Your task to perform on an android device: uninstall "Google Photos" Image 0: 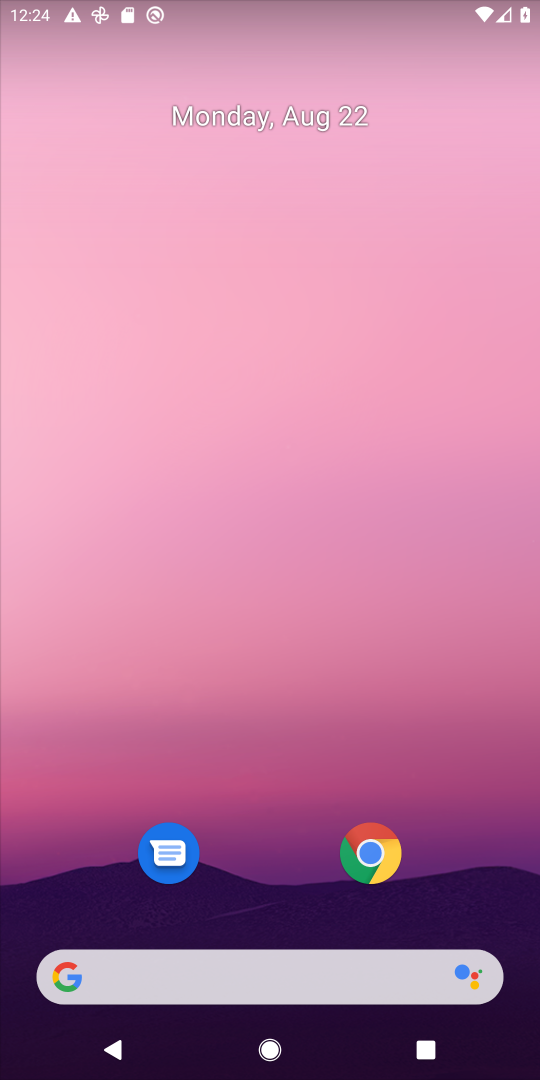
Step 0: drag from (376, 868) to (297, 464)
Your task to perform on an android device: uninstall "Google Photos" Image 1: 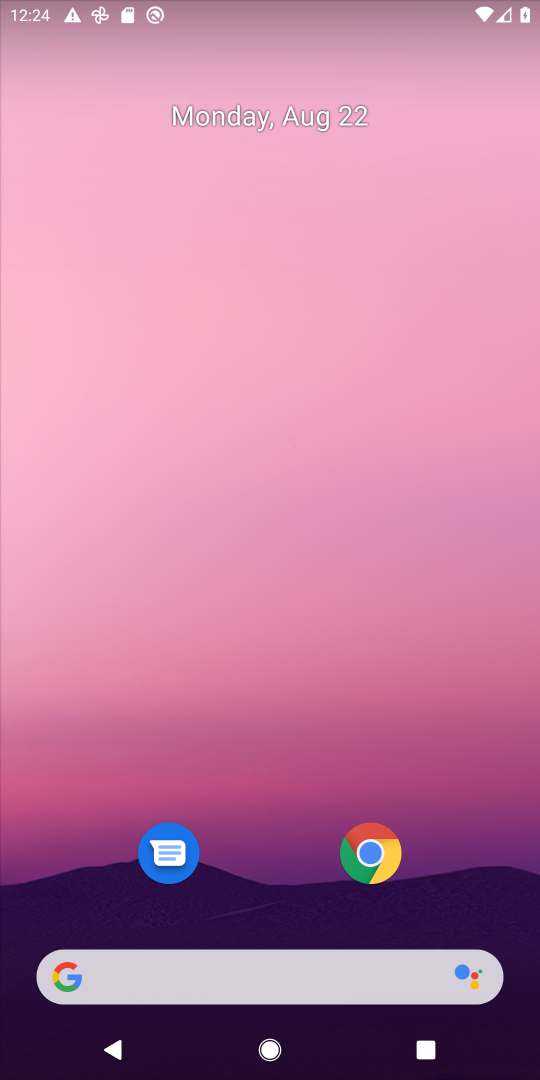
Step 1: drag from (248, 887) to (292, 90)
Your task to perform on an android device: uninstall "Google Photos" Image 2: 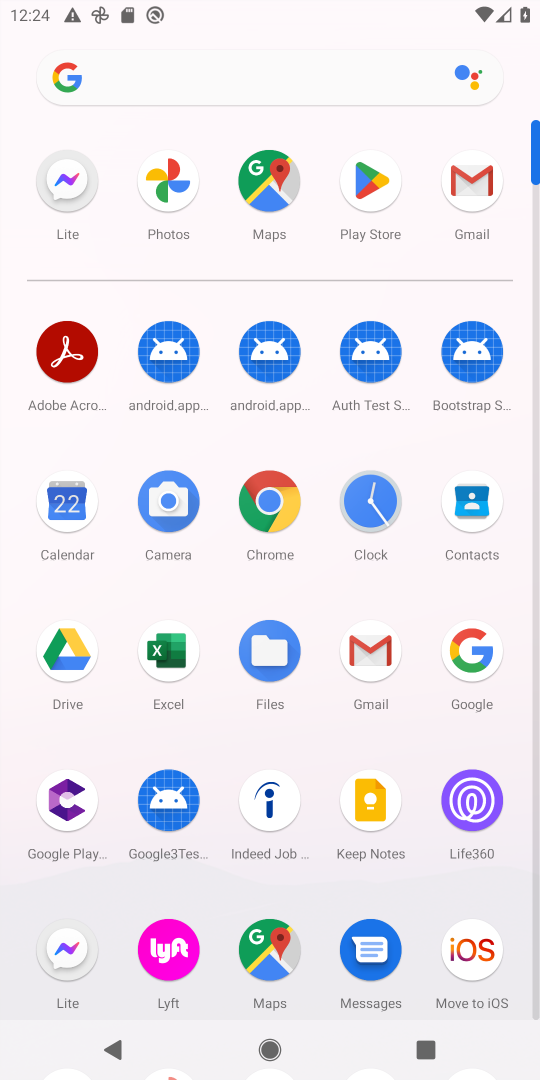
Step 2: click (364, 178)
Your task to perform on an android device: uninstall "Google Photos" Image 3: 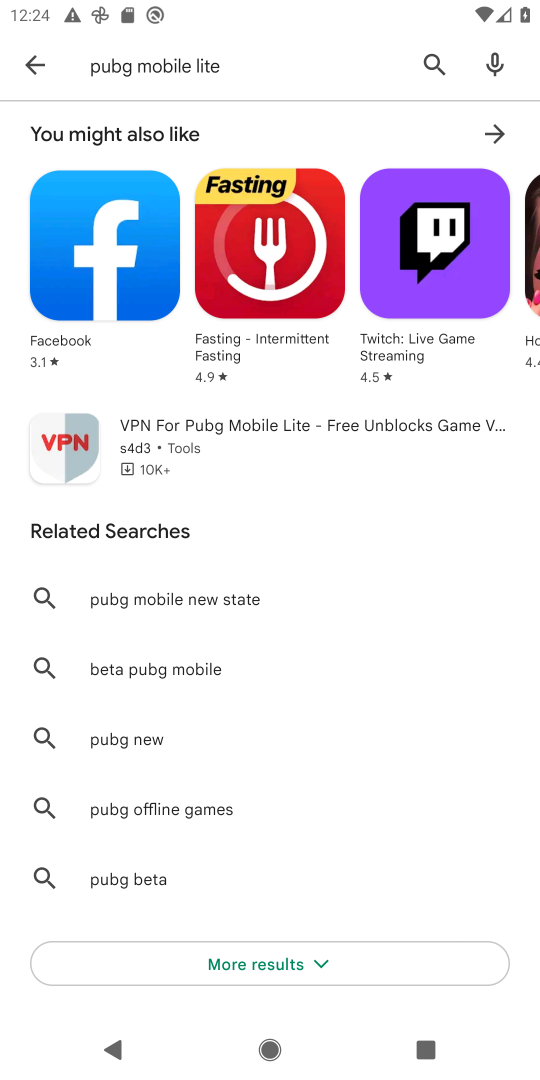
Step 3: click (45, 56)
Your task to perform on an android device: uninstall "Google Photos" Image 4: 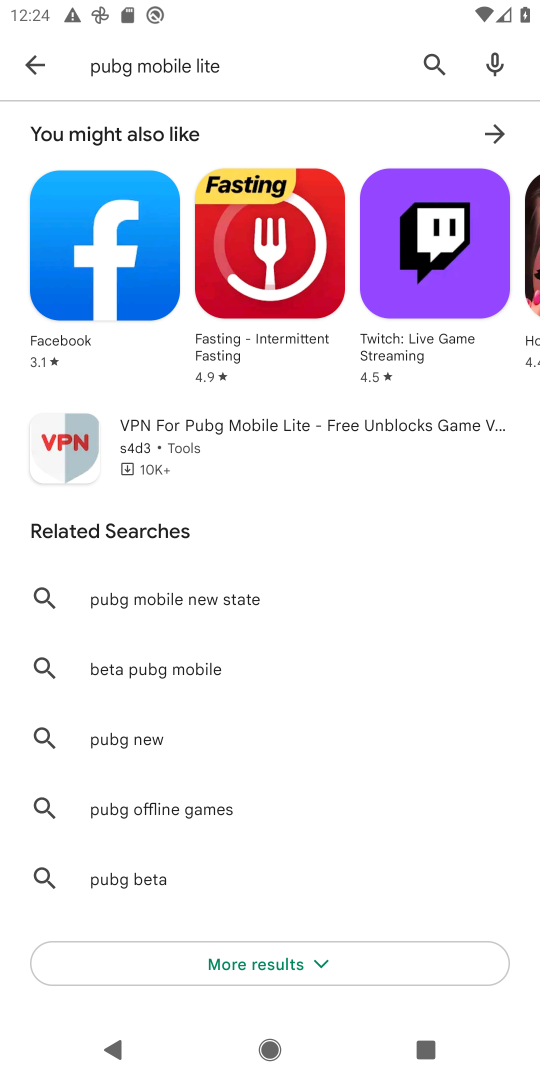
Step 4: click (45, 56)
Your task to perform on an android device: uninstall "Google Photos" Image 5: 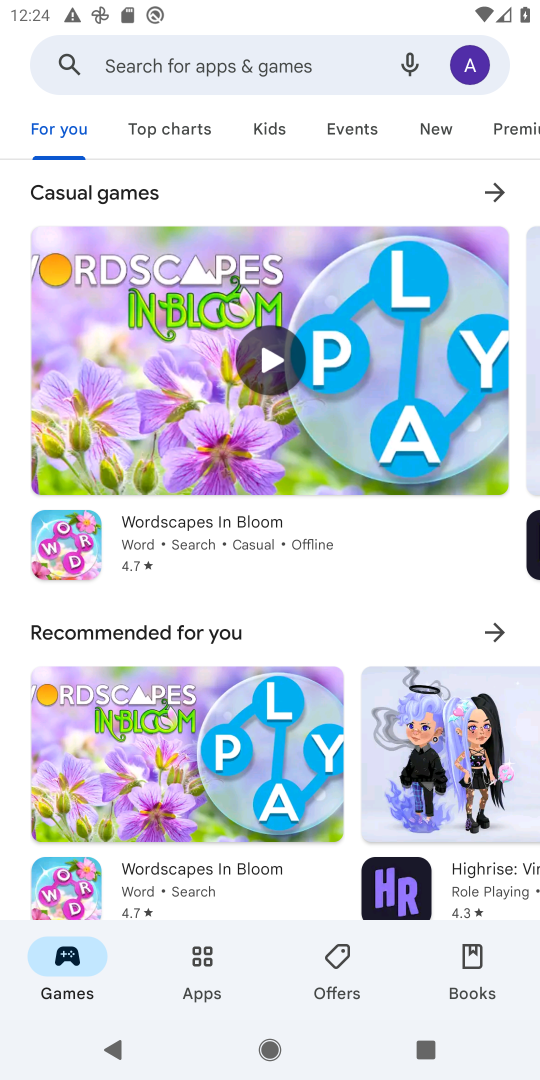
Step 5: click (264, 66)
Your task to perform on an android device: uninstall "Google Photos" Image 6: 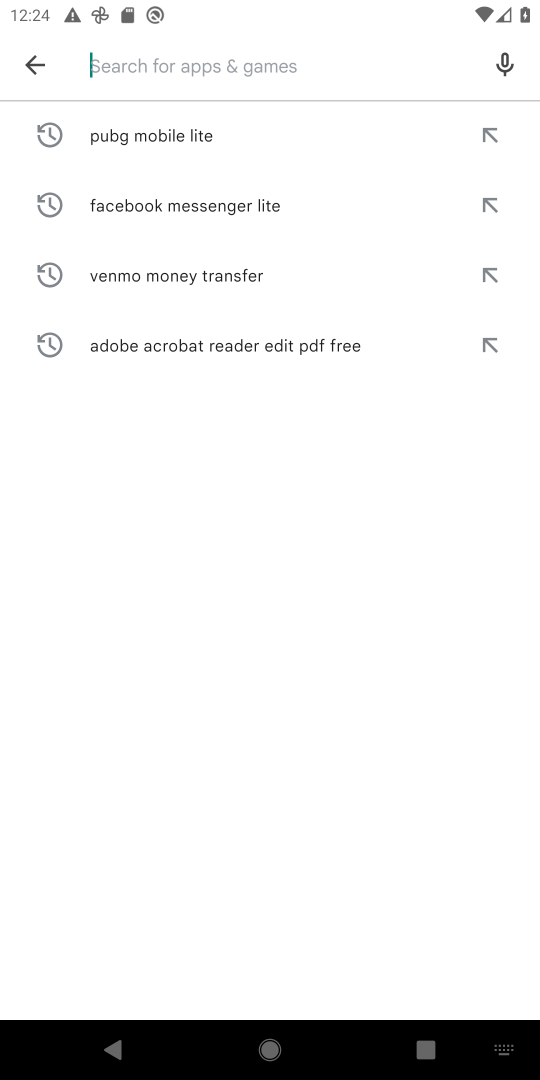
Step 6: type "Google Photos "
Your task to perform on an android device: uninstall "Google Photos" Image 7: 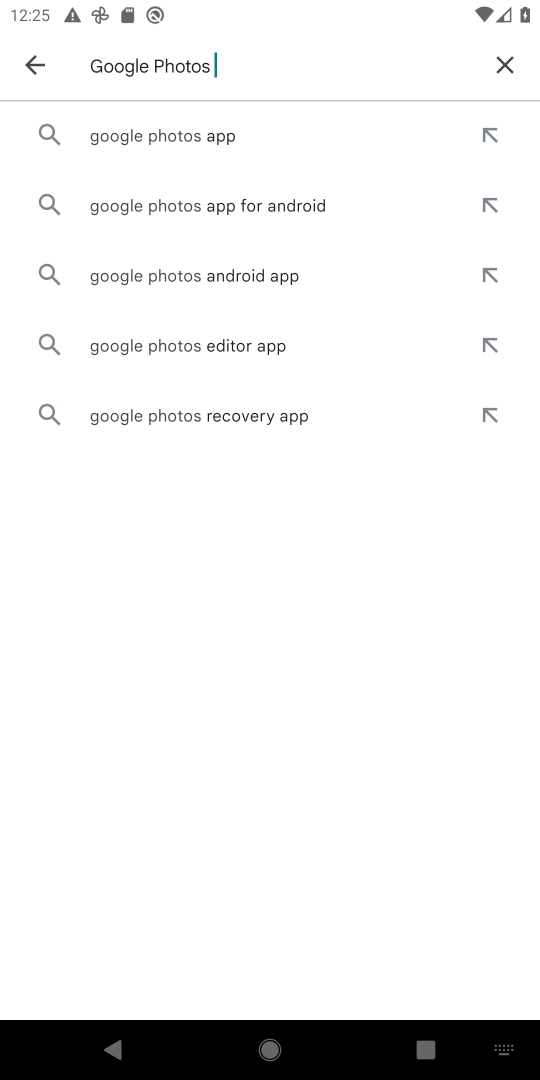
Step 7: click (230, 134)
Your task to perform on an android device: uninstall "Google Photos" Image 8: 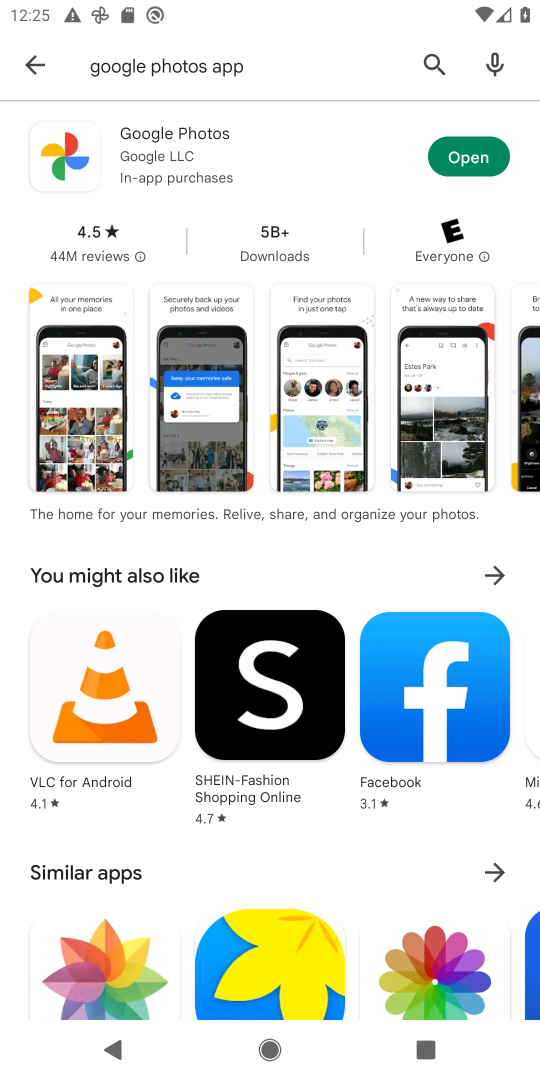
Step 8: click (441, 145)
Your task to perform on an android device: uninstall "Google Photos" Image 9: 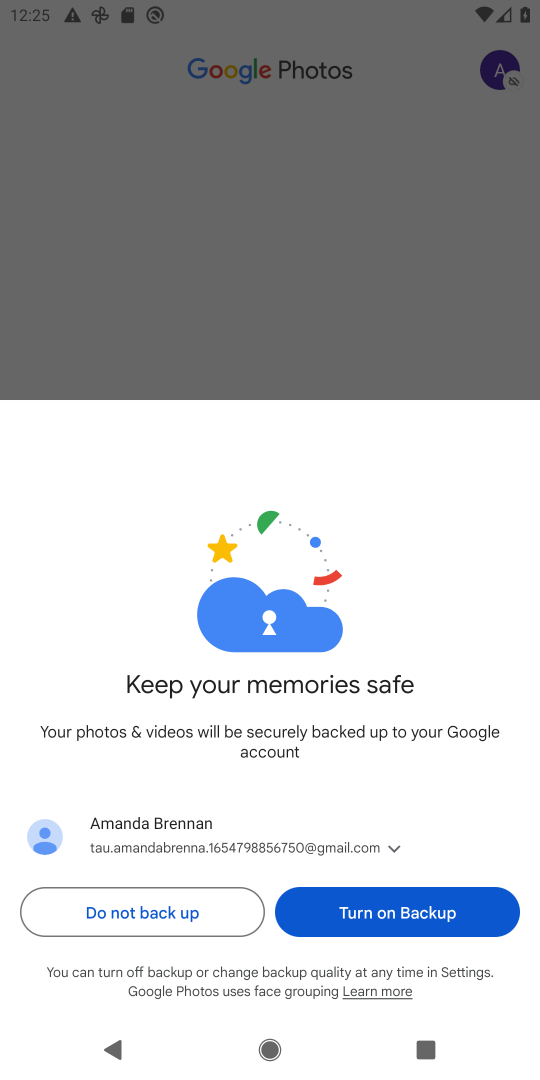
Step 9: task complete